Your task to perform on an android device: see tabs open on other devices in the chrome app Image 0: 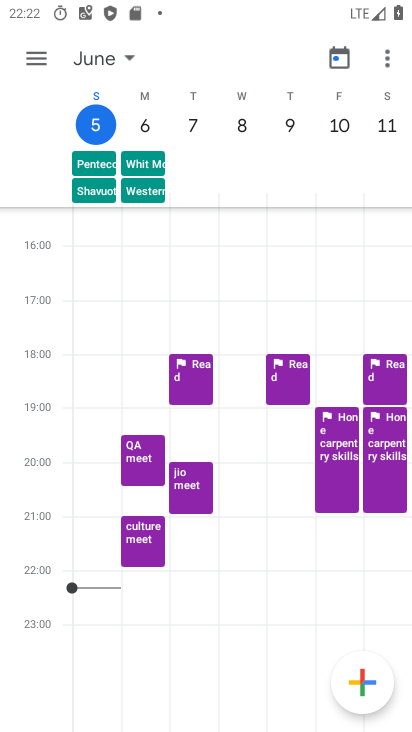
Step 0: press home button
Your task to perform on an android device: see tabs open on other devices in the chrome app Image 1: 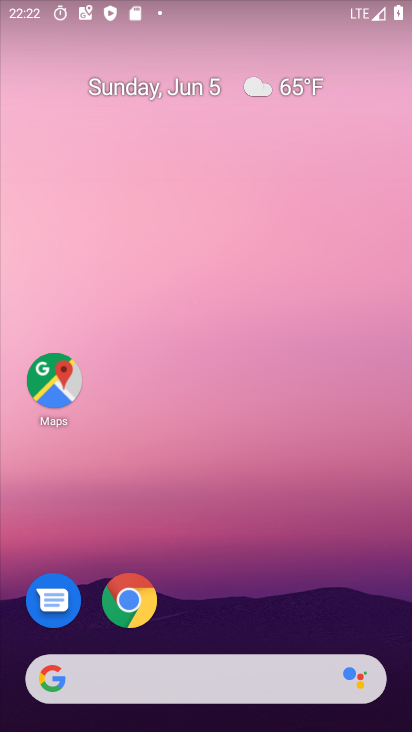
Step 1: click (141, 611)
Your task to perform on an android device: see tabs open on other devices in the chrome app Image 2: 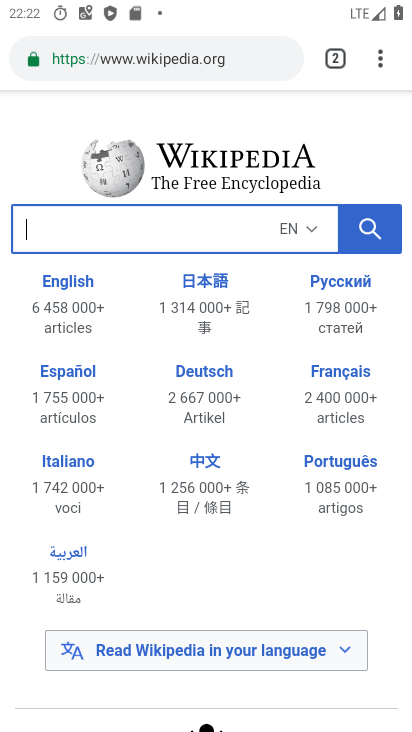
Step 2: drag from (378, 57) to (222, 394)
Your task to perform on an android device: see tabs open on other devices in the chrome app Image 3: 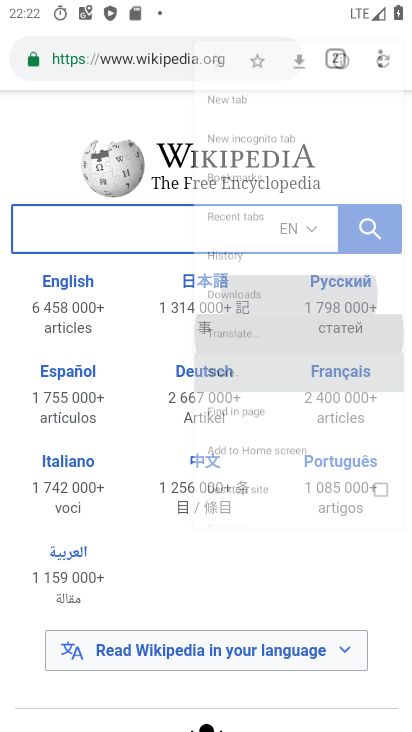
Step 3: drag from (184, 234) to (283, 129)
Your task to perform on an android device: see tabs open on other devices in the chrome app Image 4: 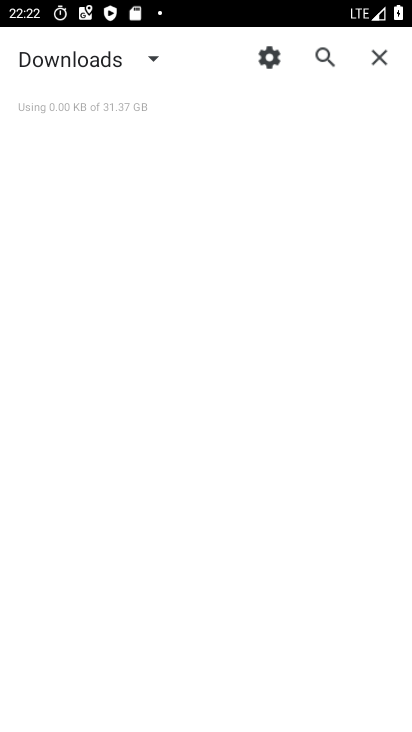
Step 4: click (371, 54)
Your task to perform on an android device: see tabs open on other devices in the chrome app Image 5: 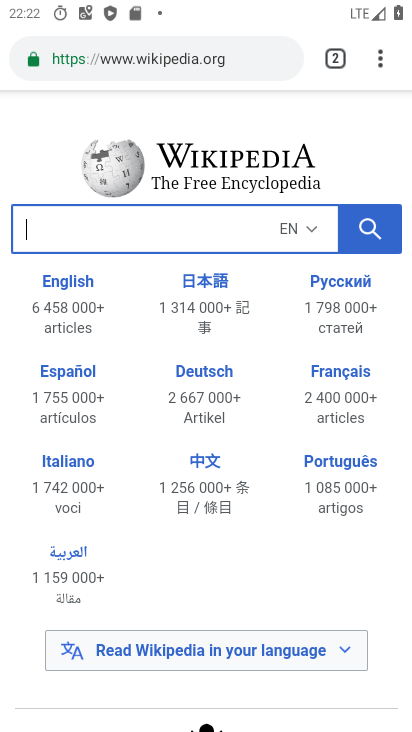
Step 5: click (381, 52)
Your task to perform on an android device: see tabs open on other devices in the chrome app Image 6: 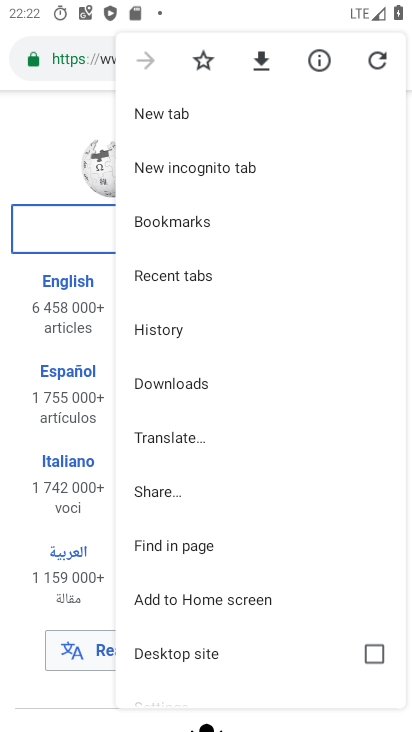
Step 6: click (172, 269)
Your task to perform on an android device: see tabs open on other devices in the chrome app Image 7: 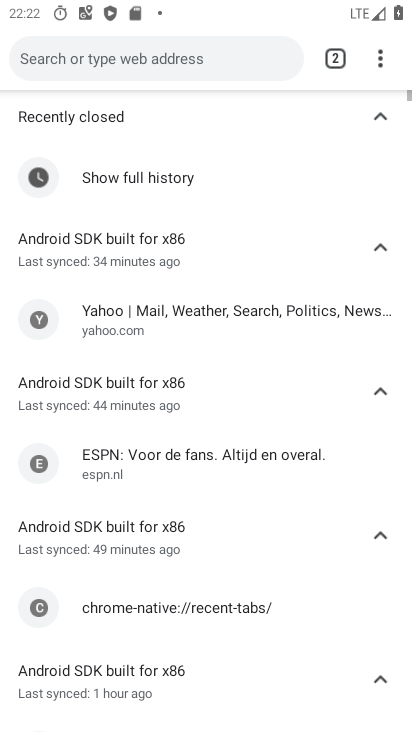
Step 7: task complete